Your task to perform on an android device: Open calendar and show me the second week of next month Image 0: 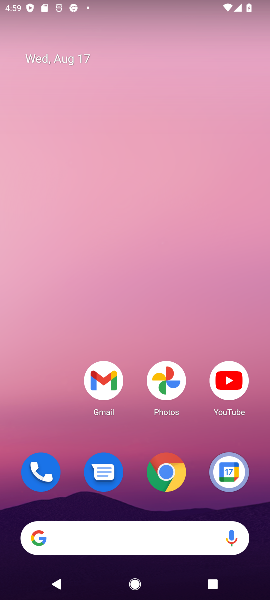
Step 0: click (229, 462)
Your task to perform on an android device: Open calendar and show me the second week of next month Image 1: 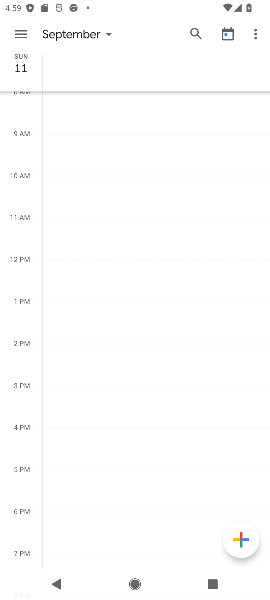
Step 1: click (102, 39)
Your task to perform on an android device: Open calendar and show me the second week of next month Image 2: 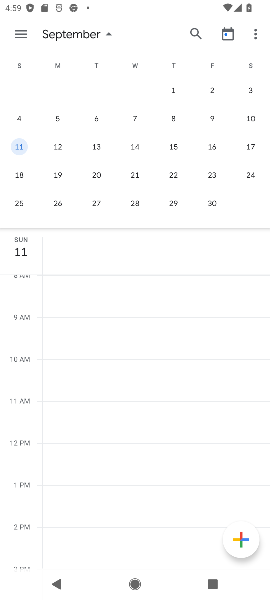
Step 2: click (19, 113)
Your task to perform on an android device: Open calendar and show me the second week of next month Image 3: 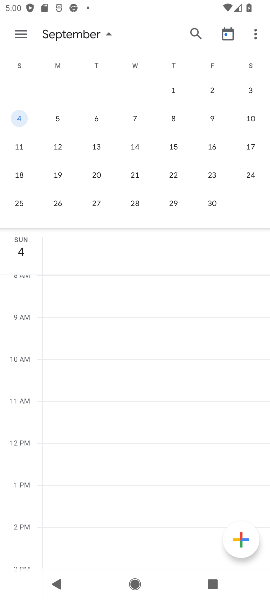
Step 3: task complete